Your task to perform on an android device: Open the map Image 0: 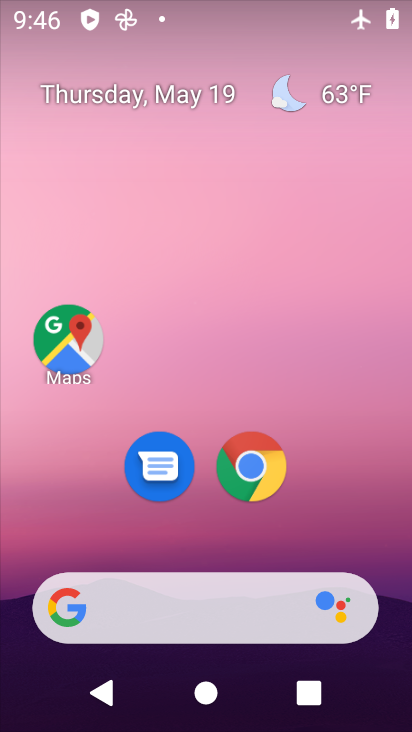
Step 0: drag from (409, 635) to (285, 95)
Your task to perform on an android device: Open the map Image 1: 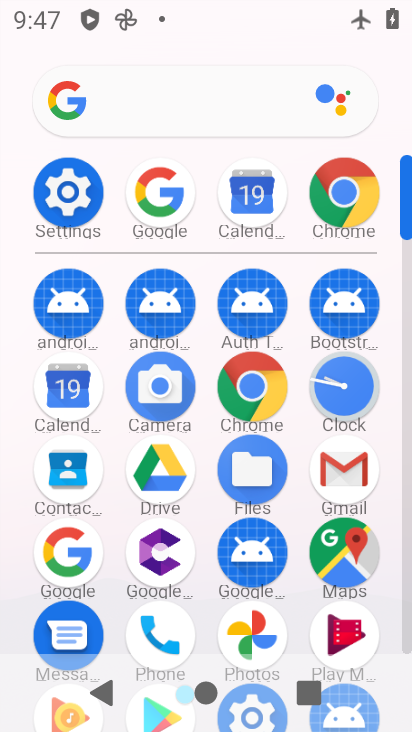
Step 1: click (346, 539)
Your task to perform on an android device: Open the map Image 2: 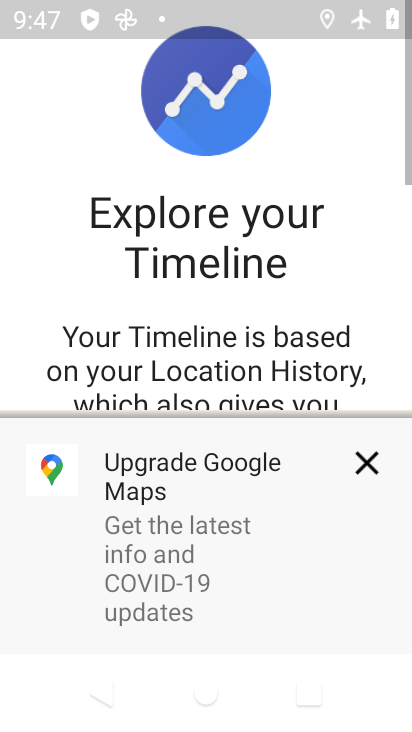
Step 2: click (383, 451)
Your task to perform on an android device: Open the map Image 3: 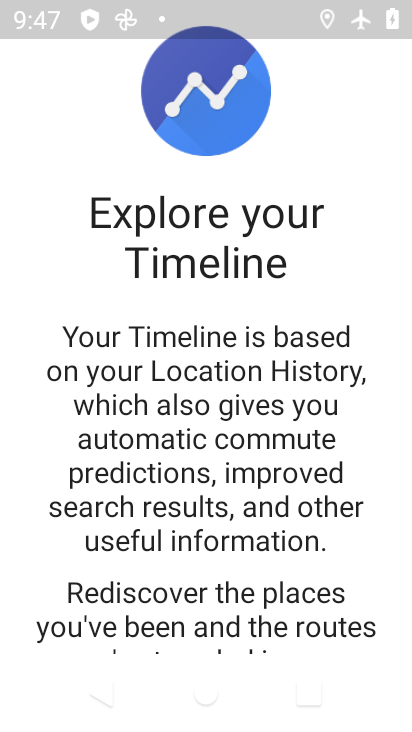
Step 3: task complete